Your task to perform on an android device: Search for seafood restaurants on Google Maps Image 0: 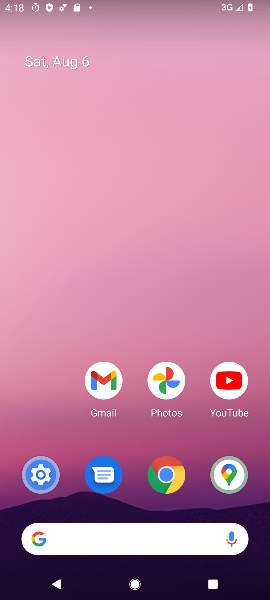
Step 0: drag from (14, 586) to (179, 218)
Your task to perform on an android device: Search for seafood restaurants on Google Maps Image 1: 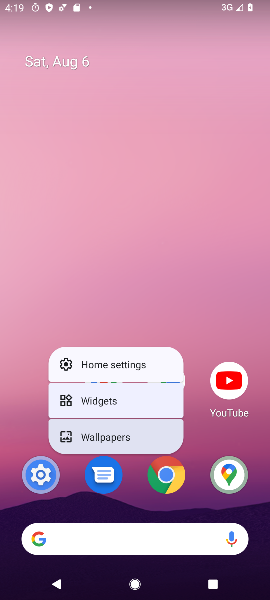
Step 1: click (21, 568)
Your task to perform on an android device: Search for seafood restaurants on Google Maps Image 2: 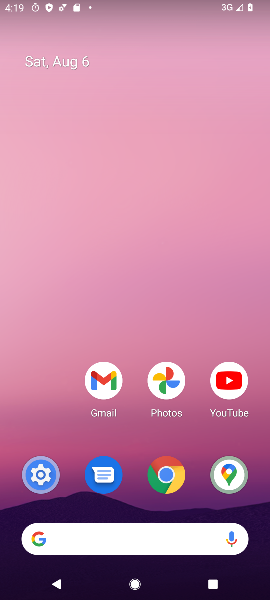
Step 2: drag from (21, 568) to (167, 149)
Your task to perform on an android device: Search for seafood restaurants on Google Maps Image 3: 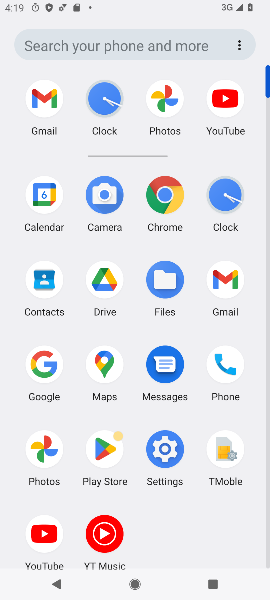
Step 3: click (98, 370)
Your task to perform on an android device: Search for seafood restaurants on Google Maps Image 4: 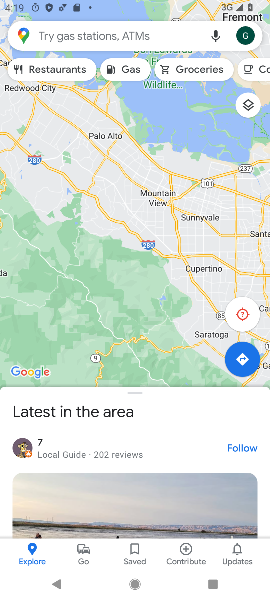
Step 4: click (50, 38)
Your task to perform on an android device: Search for seafood restaurants on Google Maps Image 5: 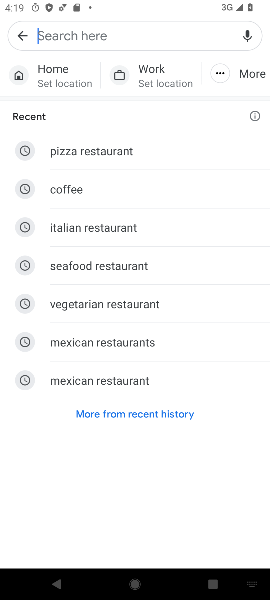
Step 5: click (134, 267)
Your task to perform on an android device: Search for seafood restaurants on Google Maps Image 6: 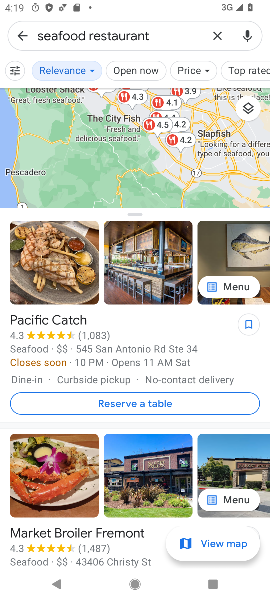
Step 6: task complete